Your task to perform on an android device: Open the calendar and show me this week's events? Image 0: 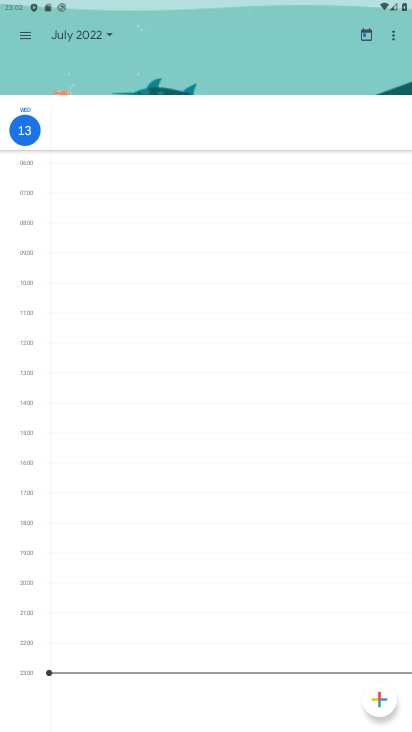
Step 0: press home button
Your task to perform on an android device: Open the calendar and show me this week's events? Image 1: 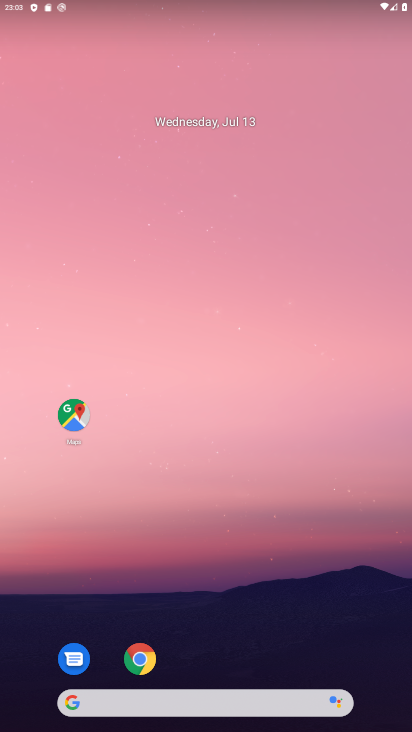
Step 1: drag from (335, 653) to (285, 67)
Your task to perform on an android device: Open the calendar and show me this week's events? Image 2: 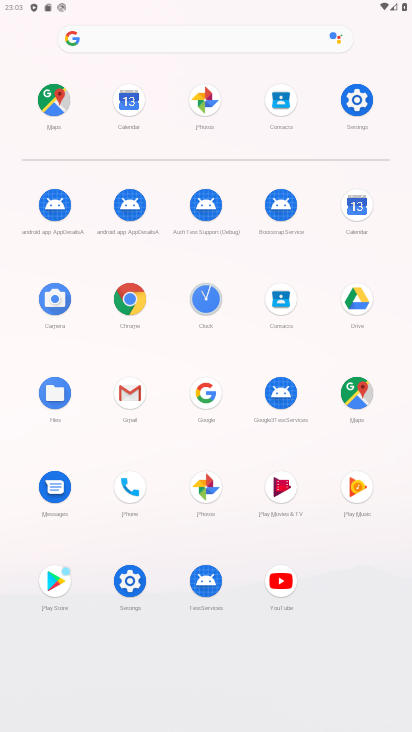
Step 2: click (357, 203)
Your task to perform on an android device: Open the calendar and show me this week's events? Image 3: 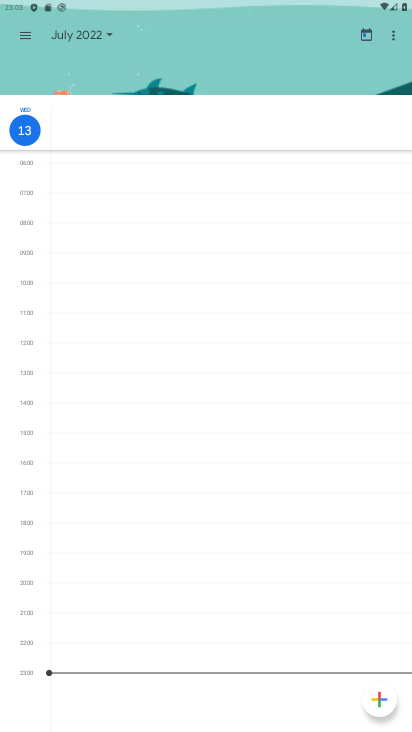
Step 3: click (25, 32)
Your task to perform on an android device: Open the calendar and show me this week's events? Image 4: 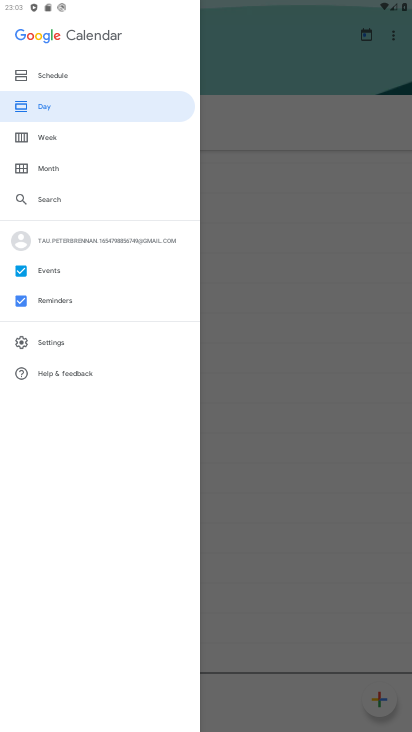
Step 4: click (46, 143)
Your task to perform on an android device: Open the calendar and show me this week's events? Image 5: 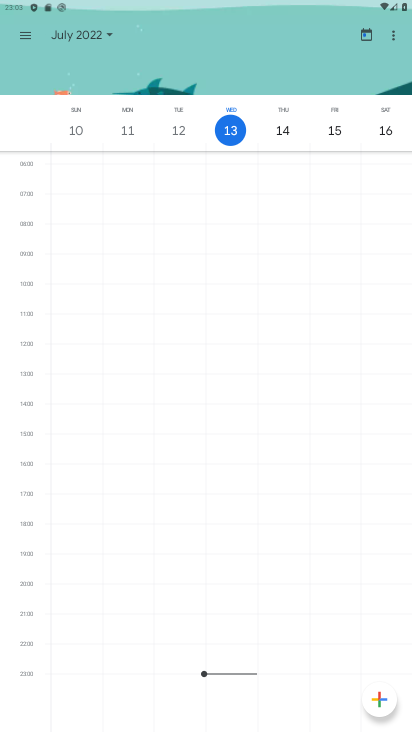
Step 5: task complete